Your task to perform on an android device: Is it going to rain this weekend? Image 0: 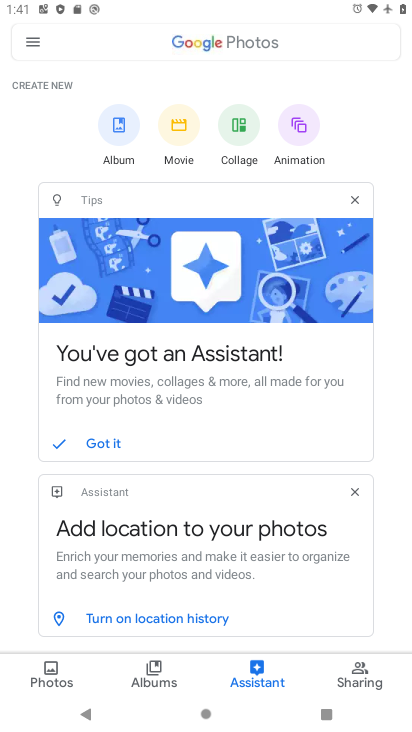
Step 0: press home button
Your task to perform on an android device: Is it going to rain this weekend? Image 1: 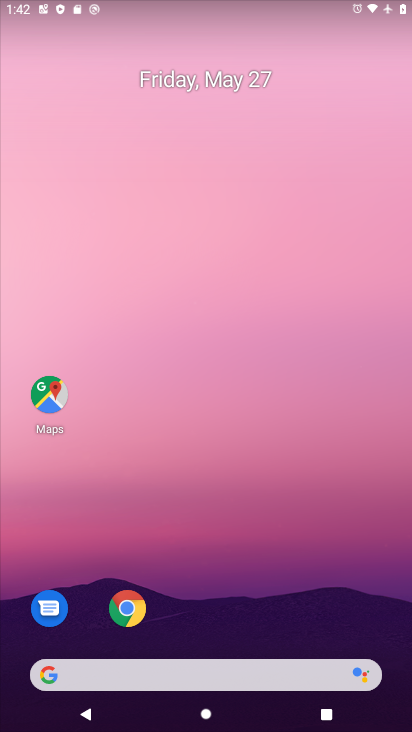
Step 1: click (55, 680)
Your task to perform on an android device: Is it going to rain this weekend? Image 2: 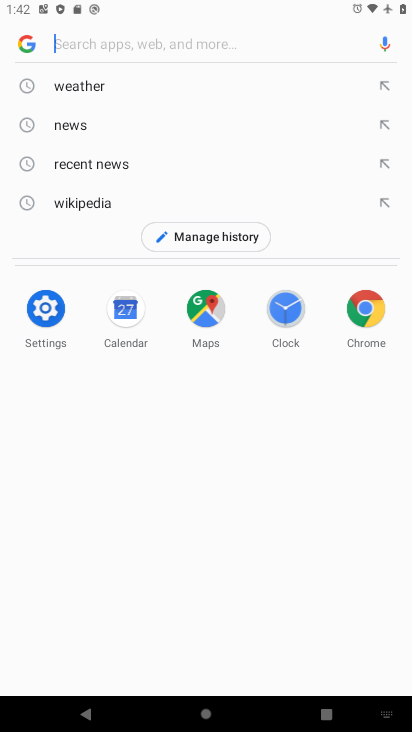
Step 2: click (73, 83)
Your task to perform on an android device: Is it going to rain this weekend? Image 3: 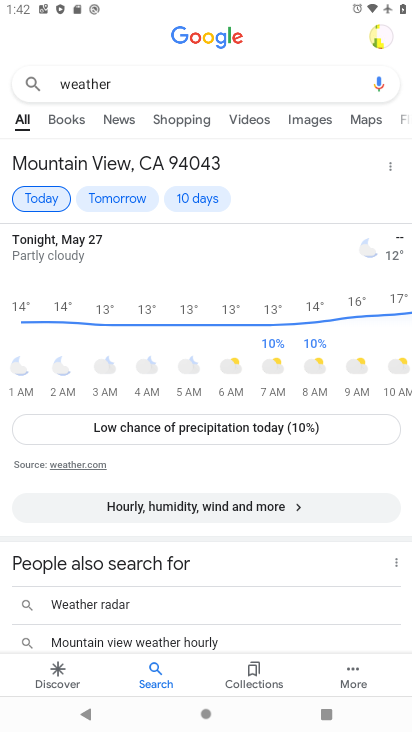
Step 3: click (209, 200)
Your task to perform on an android device: Is it going to rain this weekend? Image 4: 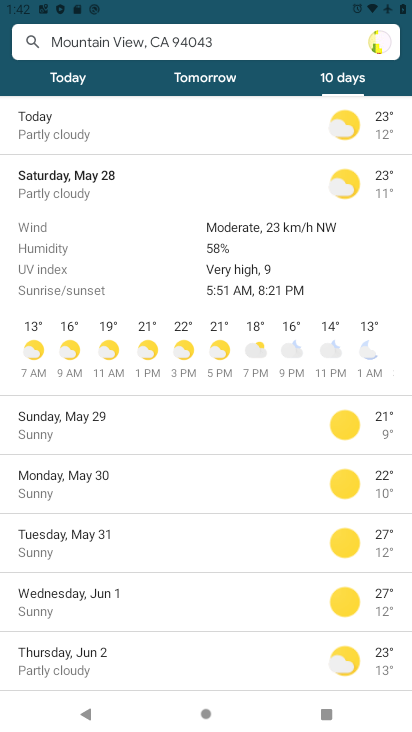
Step 4: task complete